Your task to perform on an android device: remove spam from my inbox in the gmail app Image 0: 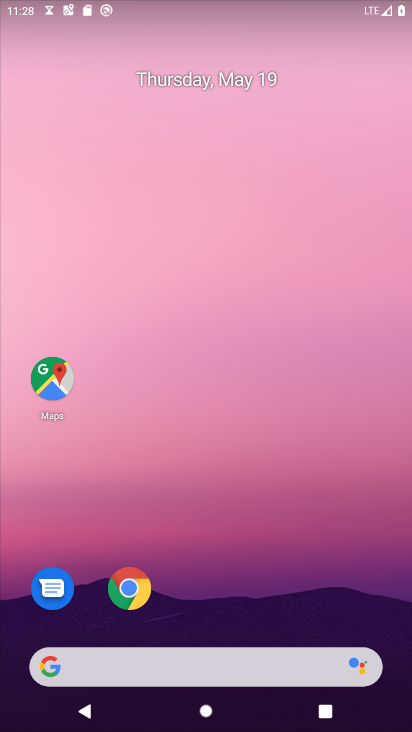
Step 0: drag from (254, 459) to (123, 8)
Your task to perform on an android device: remove spam from my inbox in the gmail app Image 1: 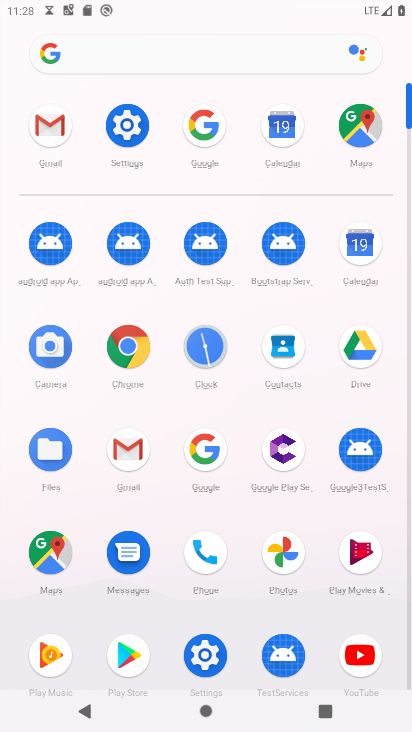
Step 1: click (121, 453)
Your task to perform on an android device: remove spam from my inbox in the gmail app Image 2: 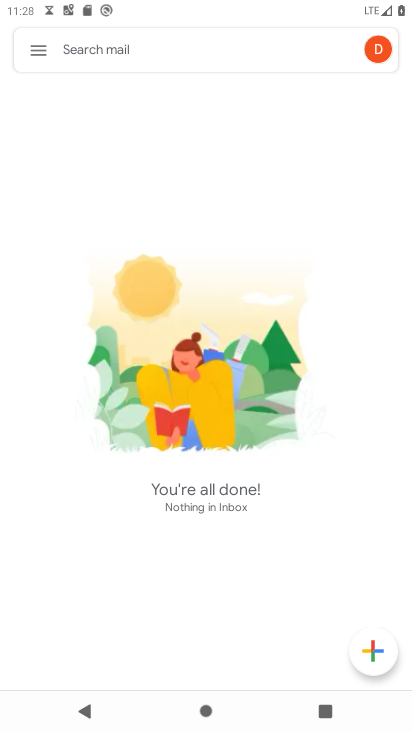
Step 2: click (25, 49)
Your task to perform on an android device: remove spam from my inbox in the gmail app Image 3: 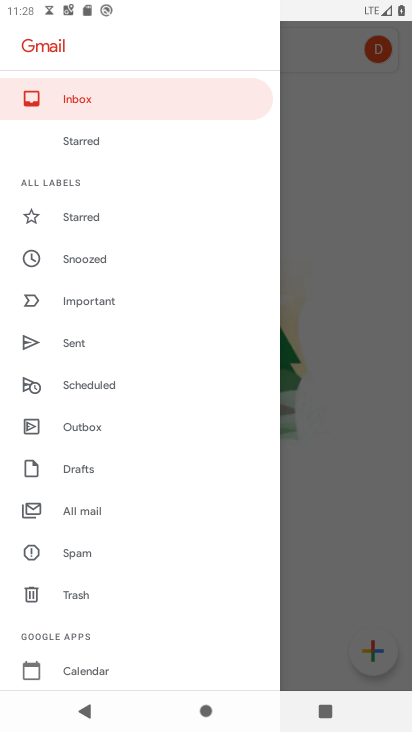
Step 3: click (105, 558)
Your task to perform on an android device: remove spam from my inbox in the gmail app Image 4: 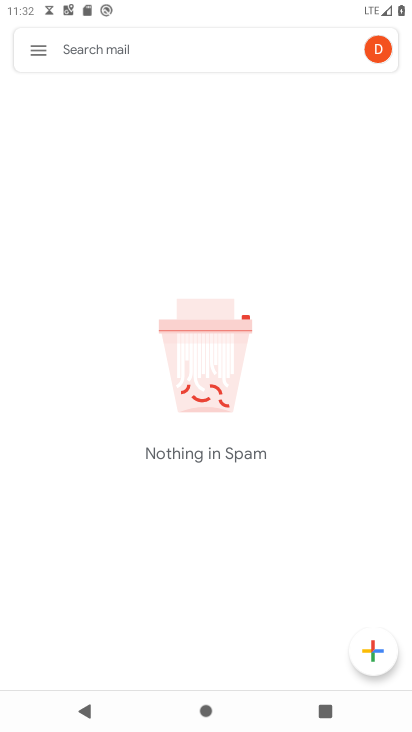
Step 4: task complete